Your task to perform on an android device: see creations saved in the google photos Image 0: 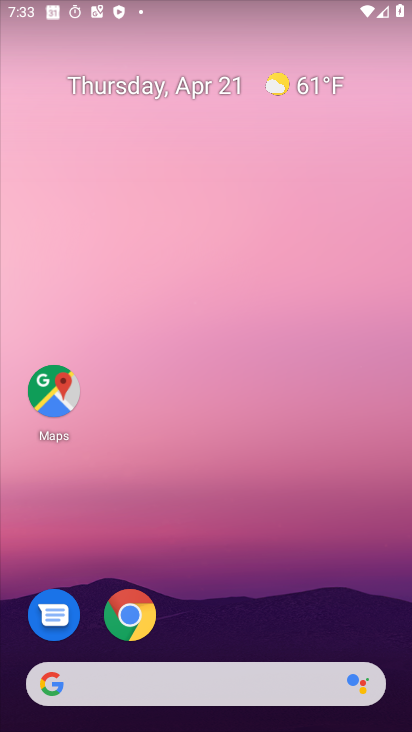
Step 0: drag from (204, 593) to (297, 4)
Your task to perform on an android device: see creations saved in the google photos Image 1: 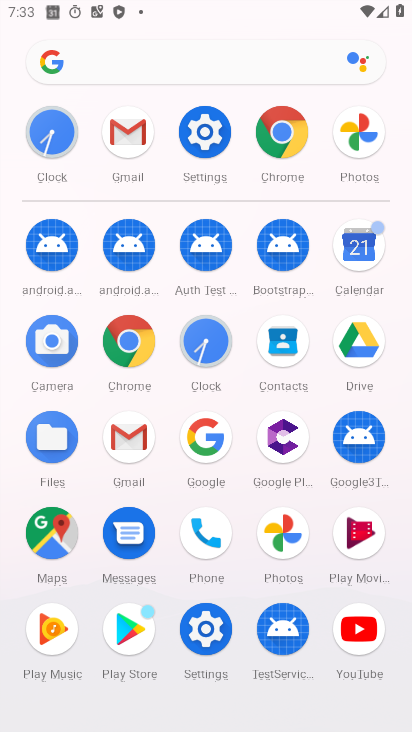
Step 1: click (282, 528)
Your task to perform on an android device: see creations saved in the google photos Image 2: 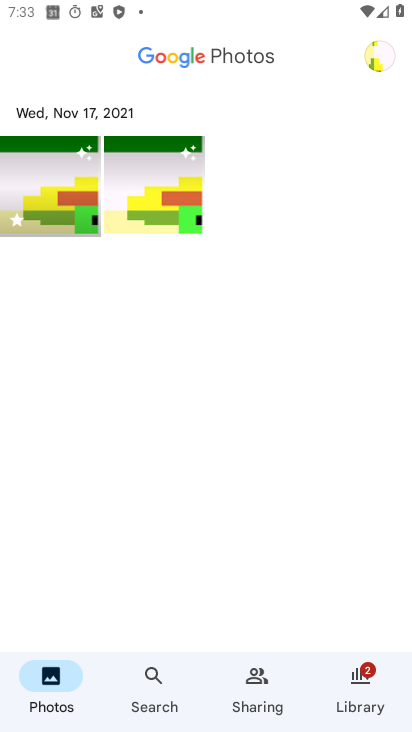
Step 2: click (150, 677)
Your task to perform on an android device: see creations saved in the google photos Image 3: 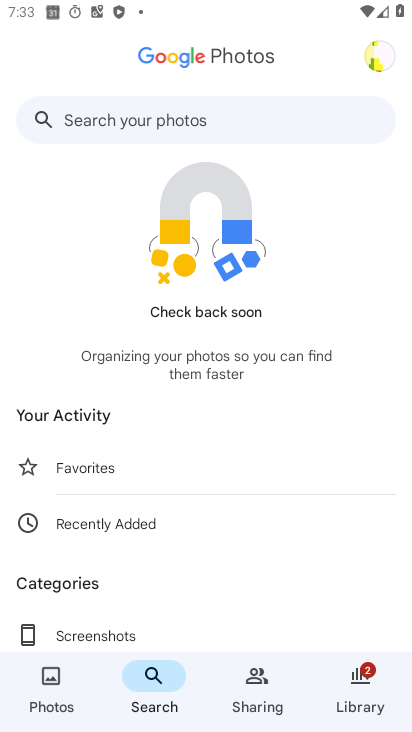
Step 3: click (128, 127)
Your task to perform on an android device: see creations saved in the google photos Image 4: 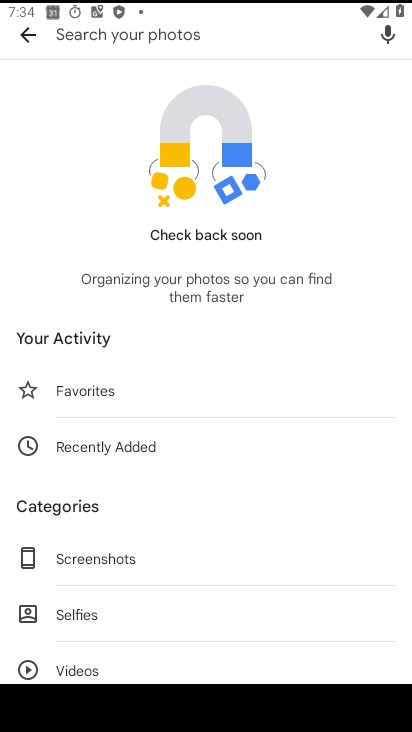
Step 4: drag from (208, 478) to (300, 149)
Your task to perform on an android device: see creations saved in the google photos Image 5: 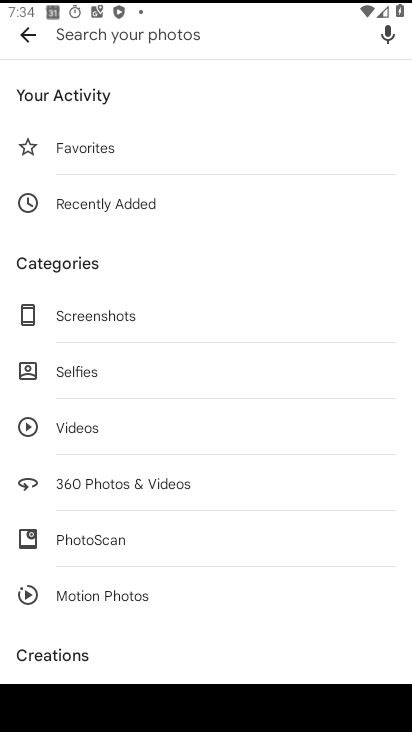
Step 5: drag from (163, 449) to (227, 110)
Your task to perform on an android device: see creations saved in the google photos Image 6: 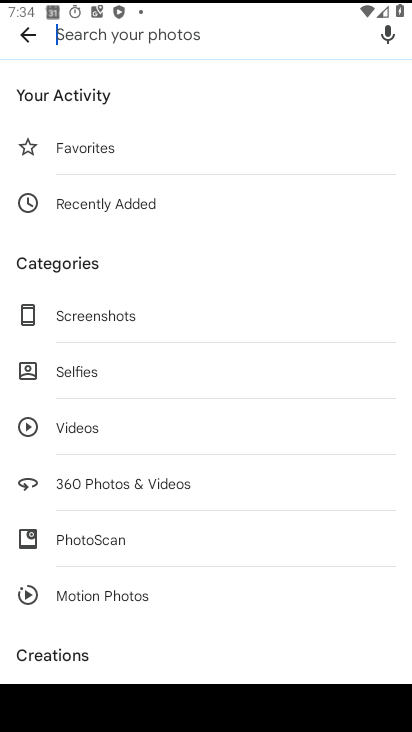
Step 6: click (60, 660)
Your task to perform on an android device: see creations saved in the google photos Image 7: 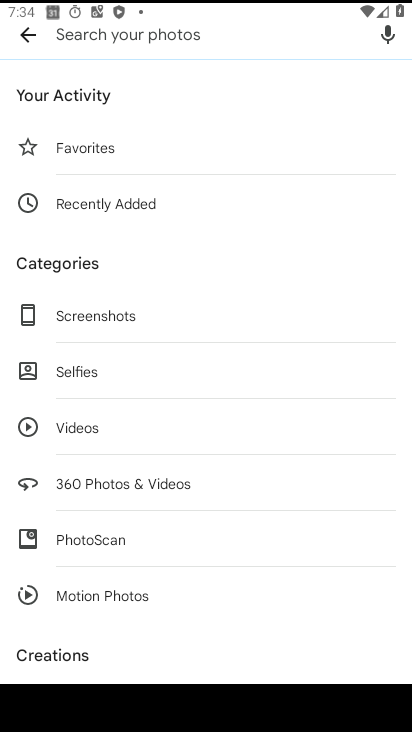
Step 7: click (82, 647)
Your task to perform on an android device: see creations saved in the google photos Image 8: 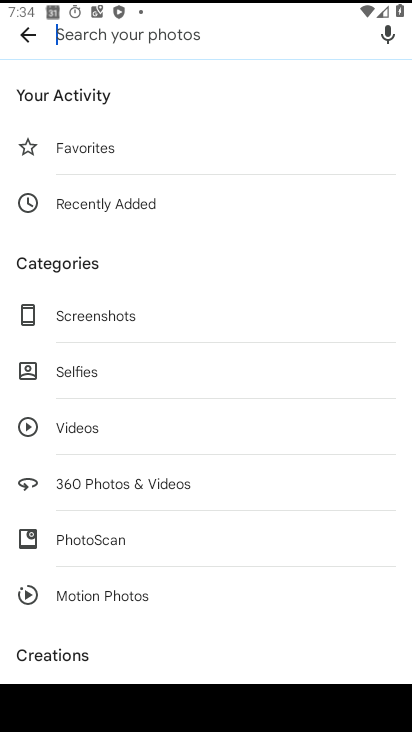
Step 8: drag from (138, 564) to (218, 20)
Your task to perform on an android device: see creations saved in the google photos Image 9: 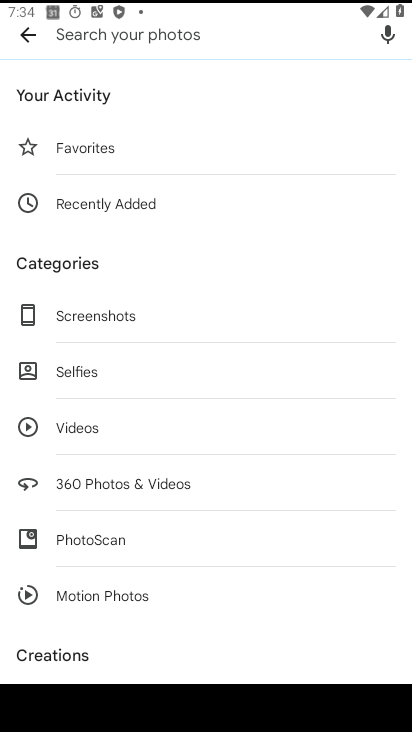
Step 9: click (94, 662)
Your task to perform on an android device: see creations saved in the google photos Image 10: 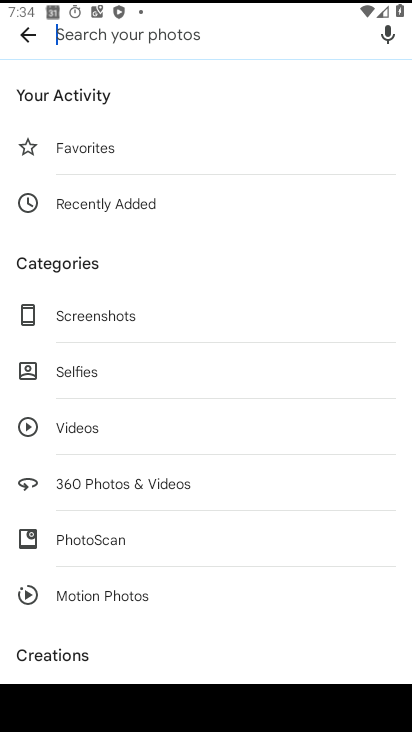
Step 10: click (81, 653)
Your task to perform on an android device: see creations saved in the google photos Image 11: 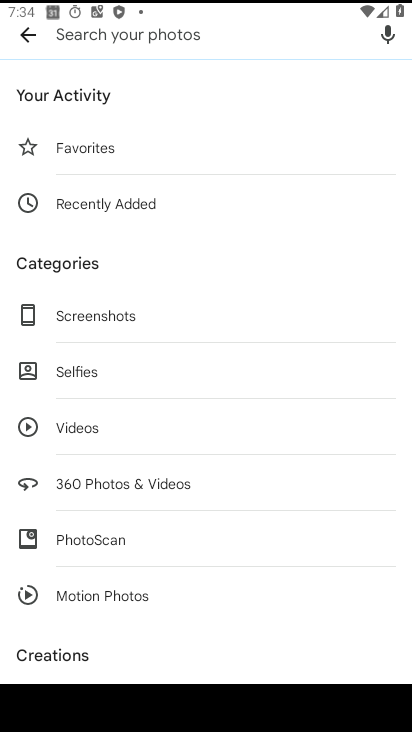
Step 11: click (81, 652)
Your task to perform on an android device: see creations saved in the google photos Image 12: 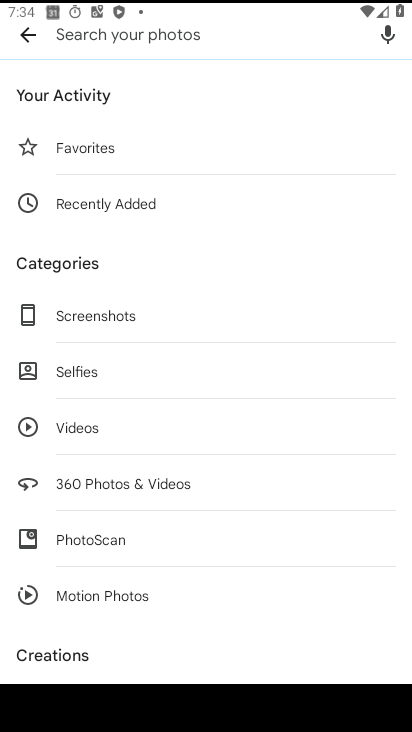
Step 12: click (32, 35)
Your task to perform on an android device: see creations saved in the google photos Image 13: 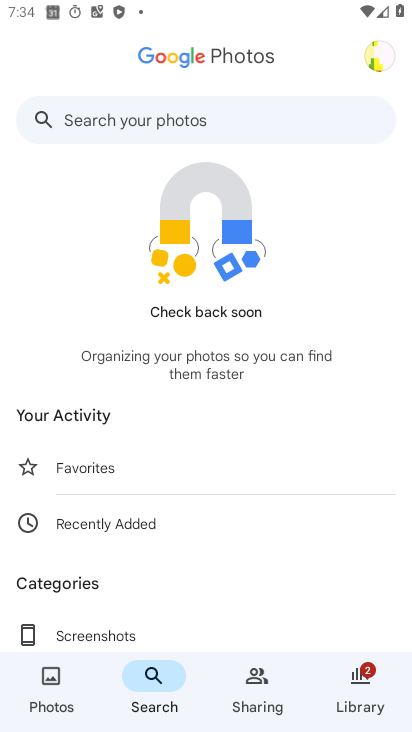
Step 13: drag from (179, 606) to (307, 41)
Your task to perform on an android device: see creations saved in the google photos Image 14: 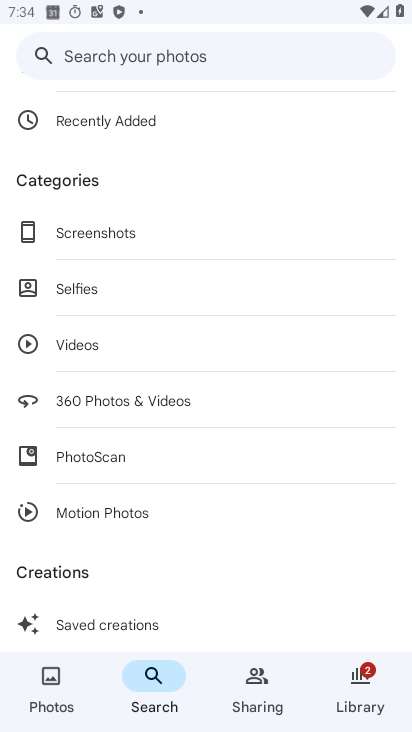
Step 14: click (110, 617)
Your task to perform on an android device: see creations saved in the google photos Image 15: 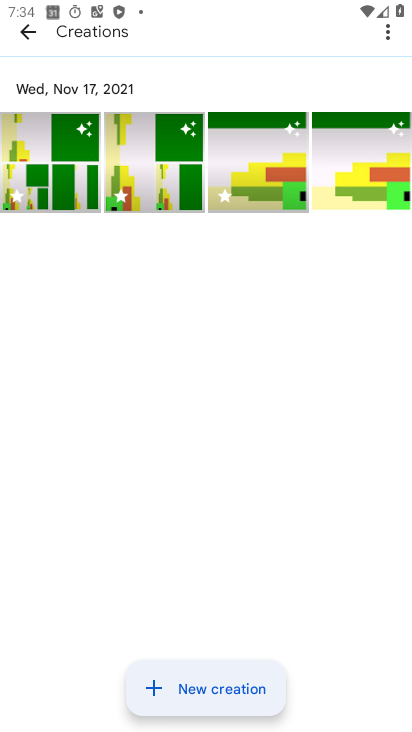
Step 15: click (149, 165)
Your task to perform on an android device: see creations saved in the google photos Image 16: 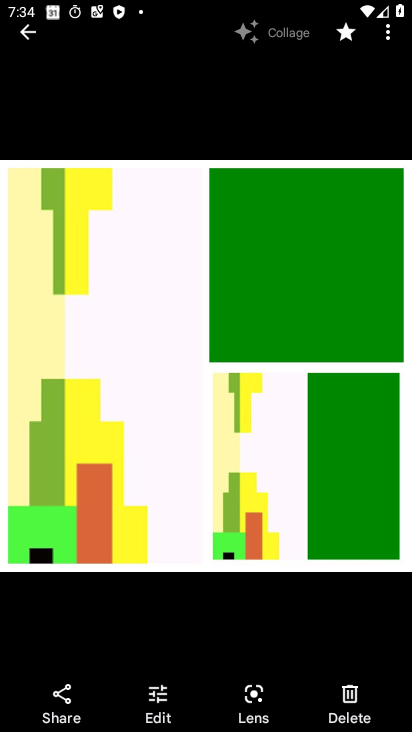
Step 16: task complete